Your task to perform on an android device: turn pop-ups off in chrome Image 0: 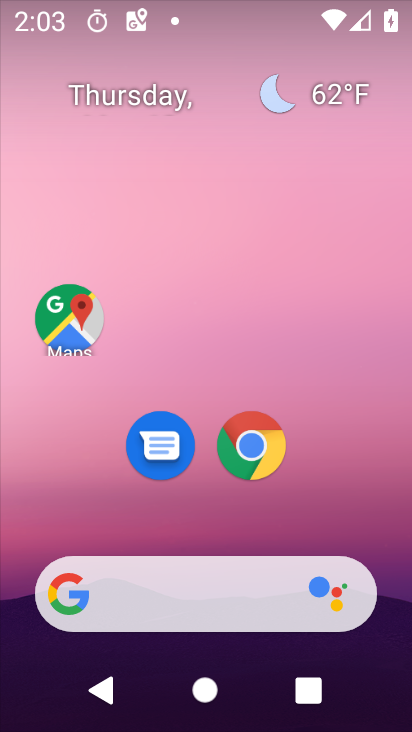
Step 0: click (274, 451)
Your task to perform on an android device: turn pop-ups off in chrome Image 1: 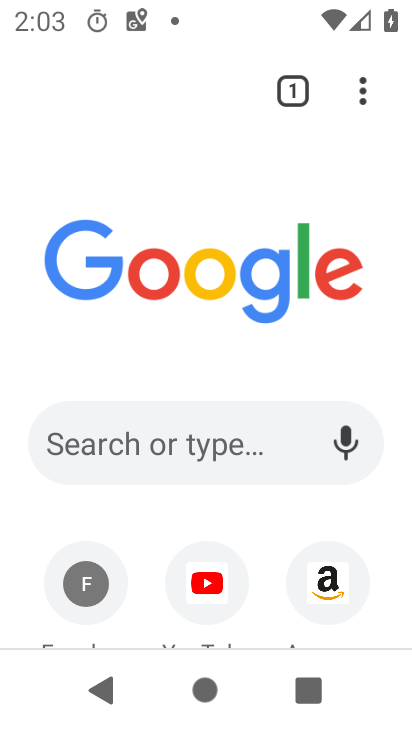
Step 1: drag from (361, 96) to (154, 468)
Your task to perform on an android device: turn pop-ups off in chrome Image 2: 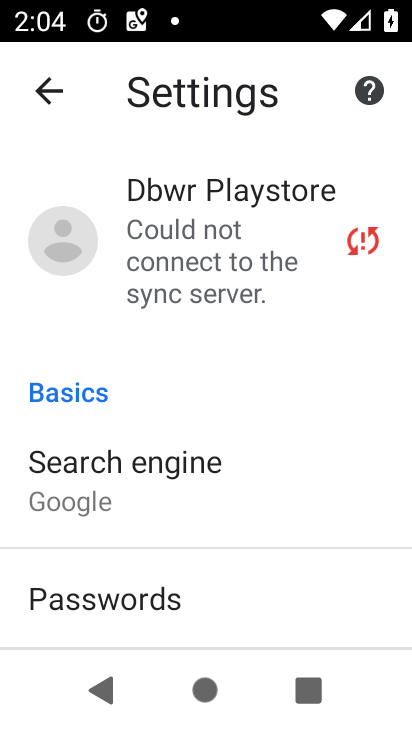
Step 2: drag from (125, 532) to (143, 48)
Your task to perform on an android device: turn pop-ups off in chrome Image 3: 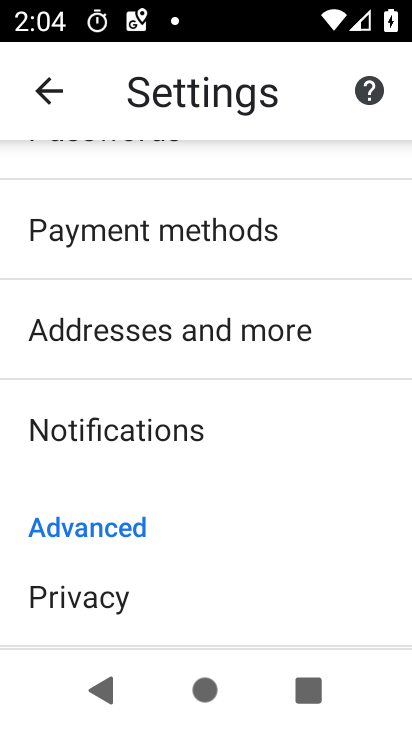
Step 3: drag from (187, 286) to (192, 134)
Your task to perform on an android device: turn pop-ups off in chrome Image 4: 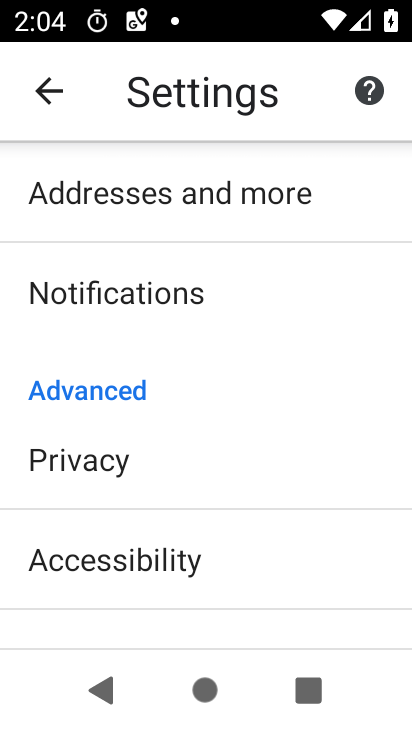
Step 4: drag from (116, 587) to (134, 121)
Your task to perform on an android device: turn pop-ups off in chrome Image 5: 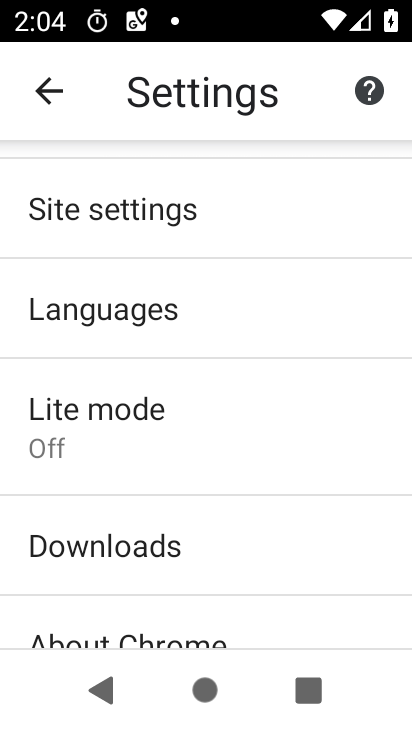
Step 5: click (147, 234)
Your task to perform on an android device: turn pop-ups off in chrome Image 6: 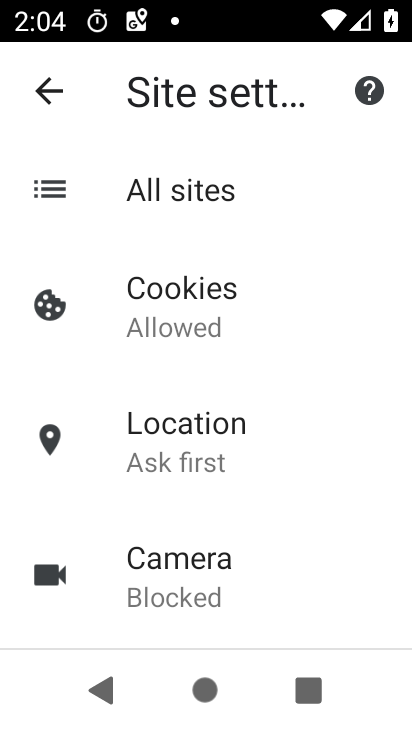
Step 6: drag from (210, 542) to (208, 143)
Your task to perform on an android device: turn pop-ups off in chrome Image 7: 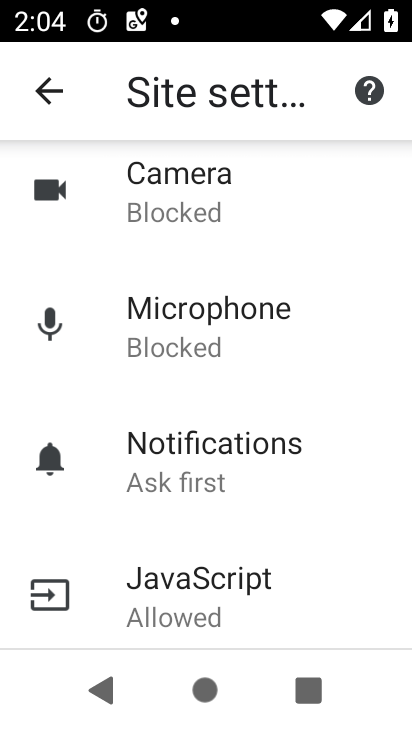
Step 7: drag from (208, 581) to (198, 230)
Your task to perform on an android device: turn pop-ups off in chrome Image 8: 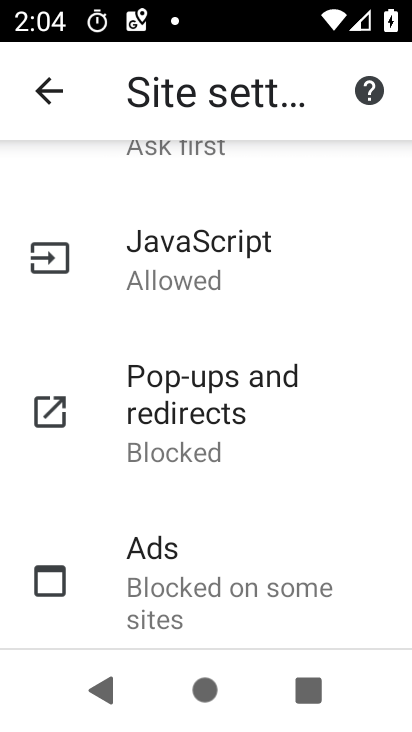
Step 8: click (195, 402)
Your task to perform on an android device: turn pop-ups off in chrome Image 9: 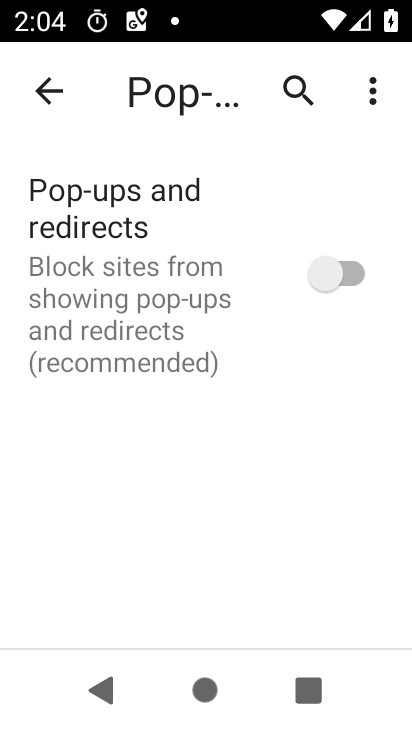
Step 9: task complete